Your task to perform on an android device: Go to settings Image 0: 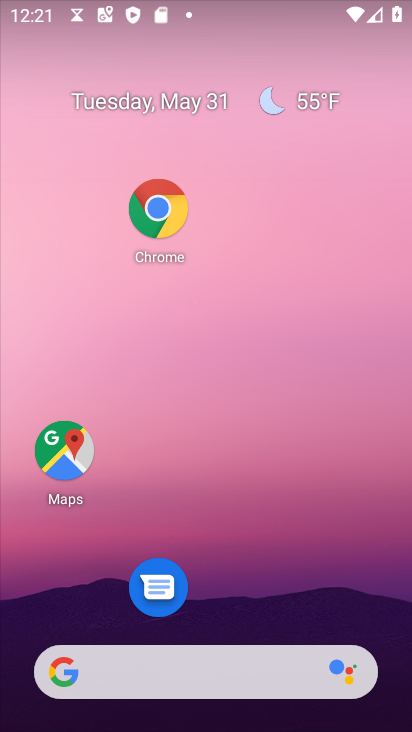
Step 0: drag from (219, 567) to (261, 131)
Your task to perform on an android device: Go to settings Image 1: 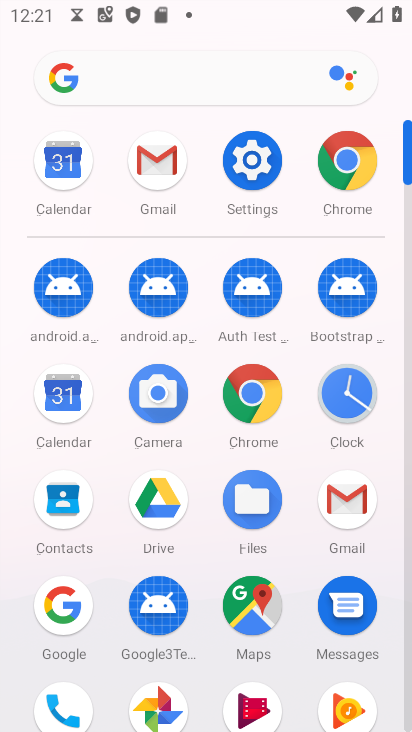
Step 1: click (244, 171)
Your task to perform on an android device: Go to settings Image 2: 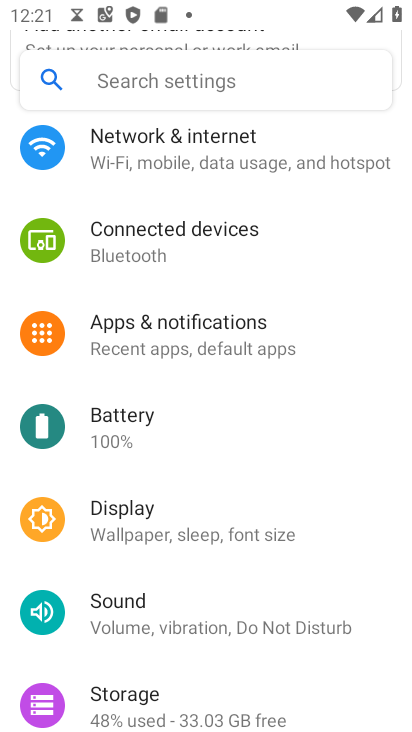
Step 2: task complete